Your task to perform on an android device: Go to Yahoo.com Image 0: 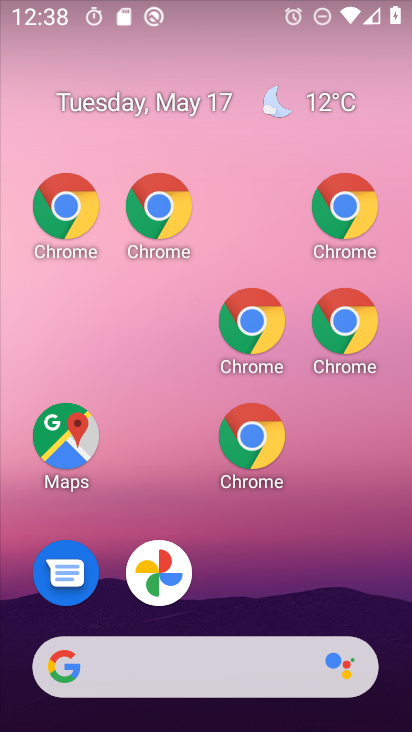
Step 0: drag from (273, 679) to (281, 282)
Your task to perform on an android device: Go to Yahoo.com Image 1: 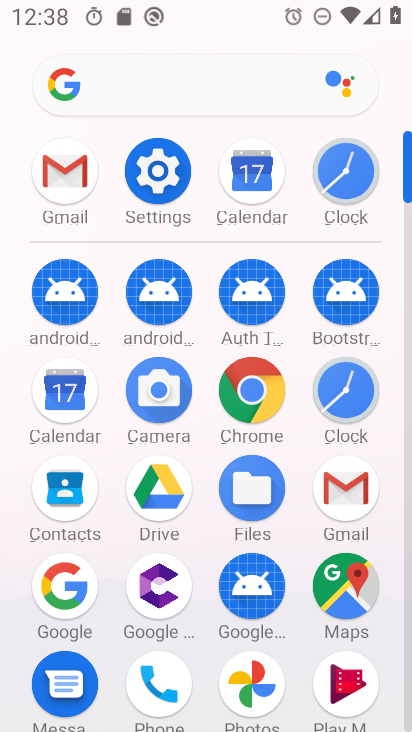
Step 1: click (256, 407)
Your task to perform on an android device: Go to Yahoo.com Image 2: 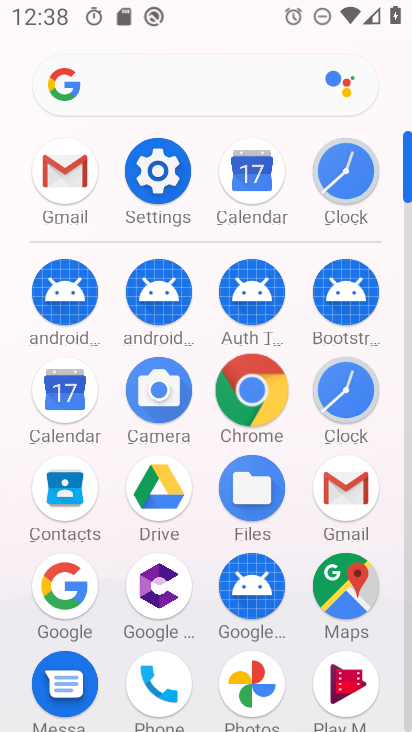
Step 2: click (258, 400)
Your task to perform on an android device: Go to Yahoo.com Image 3: 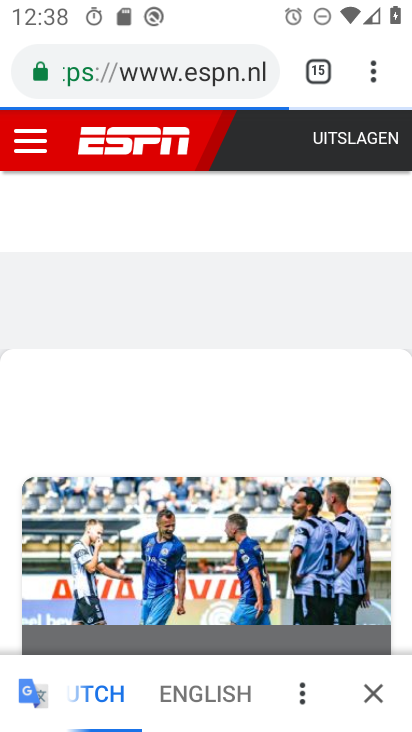
Step 3: drag from (371, 79) to (114, 137)
Your task to perform on an android device: Go to Yahoo.com Image 4: 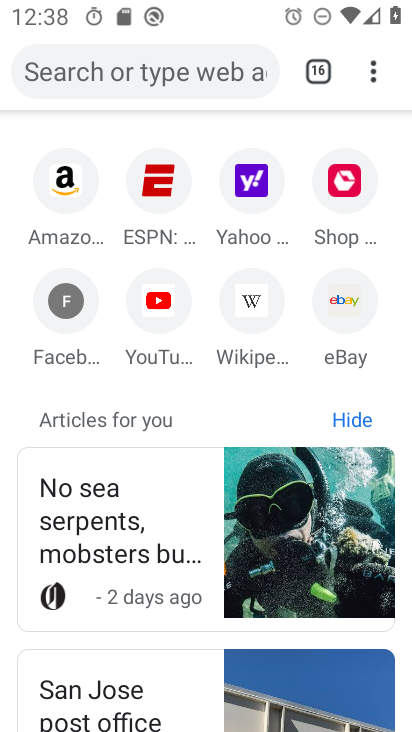
Step 4: click (248, 173)
Your task to perform on an android device: Go to Yahoo.com Image 5: 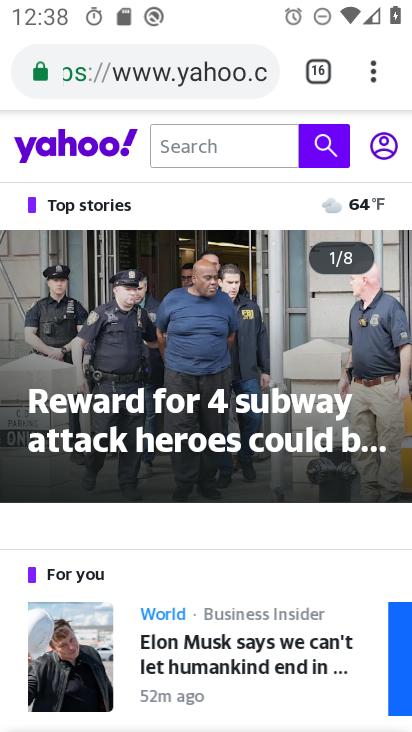
Step 5: task complete